Your task to perform on an android device: turn on javascript in the chrome app Image 0: 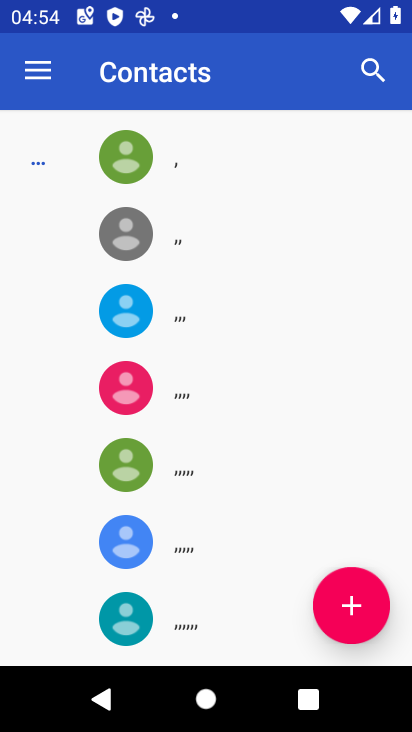
Step 0: press home button
Your task to perform on an android device: turn on javascript in the chrome app Image 1: 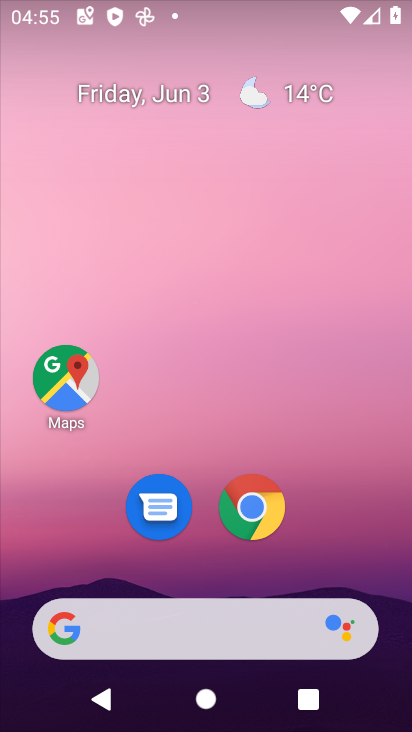
Step 1: drag from (353, 506) to (350, 144)
Your task to perform on an android device: turn on javascript in the chrome app Image 2: 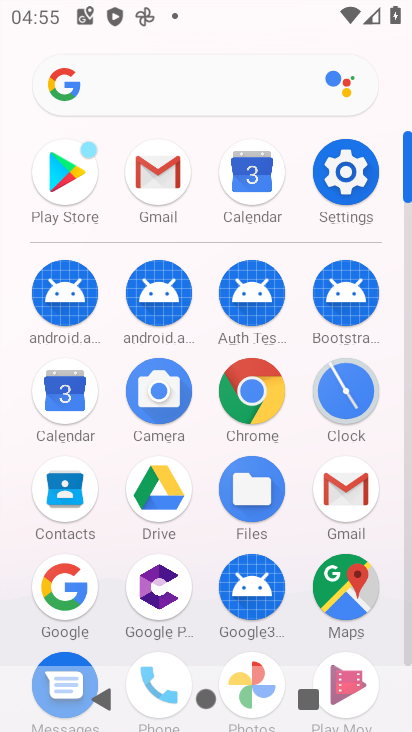
Step 2: click (262, 387)
Your task to perform on an android device: turn on javascript in the chrome app Image 3: 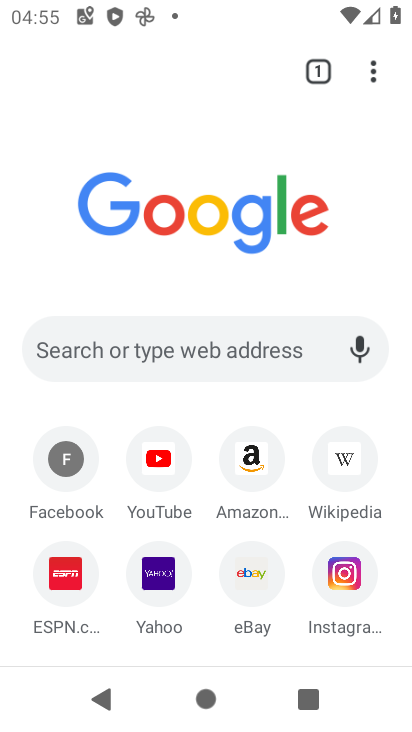
Step 3: click (371, 65)
Your task to perform on an android device: turn on javascript in the chrome app Image 4: 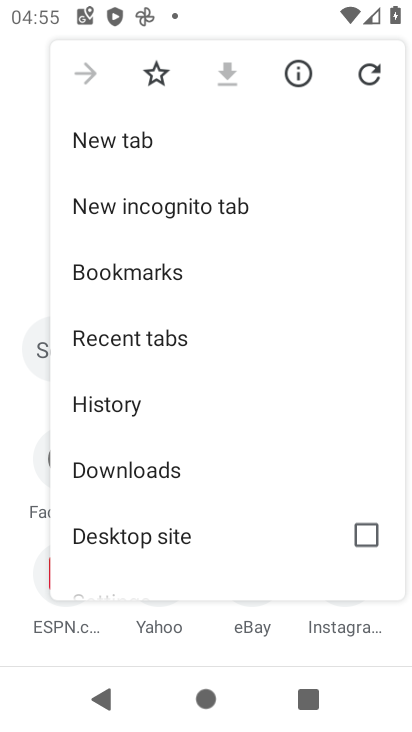
Step 4: drag from (241, 553) to (230, 89)
Your task to perform on an android device: turn on javascript in the chrome app Image 5: 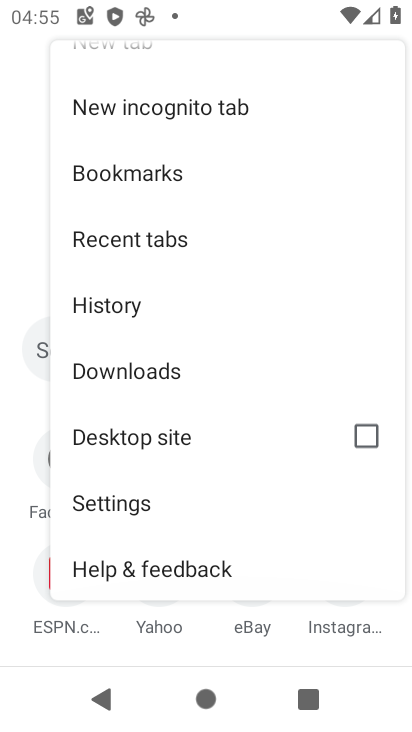
Step 5: click (158, 506)
Your task to perform on an android device: turn on javascript in the chrome app Image 6: 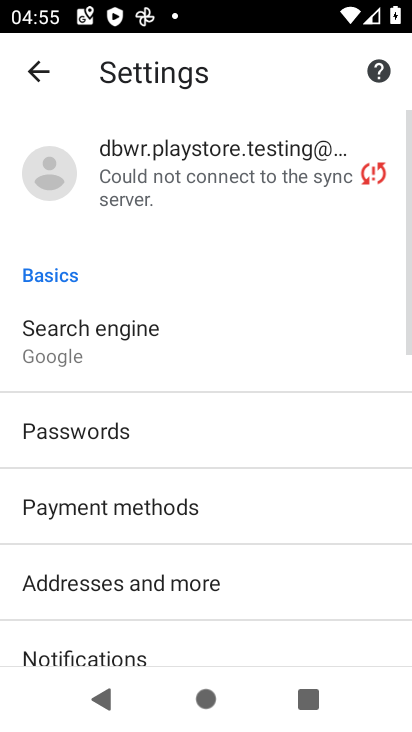
Step 6: drag from (271, 632) to (271, 155)
Your task to perform on an android device: turn on javascript in the chrome app Image 7: 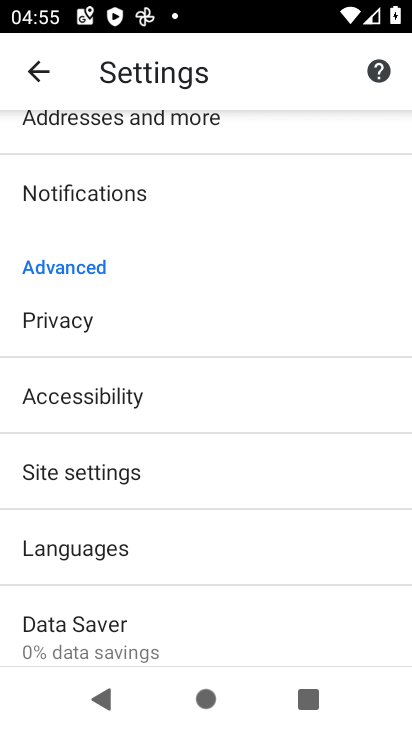
Step 7: click (100, 480)
Your task to perform on an android device: turn on javascript in the chrome app Image 8: 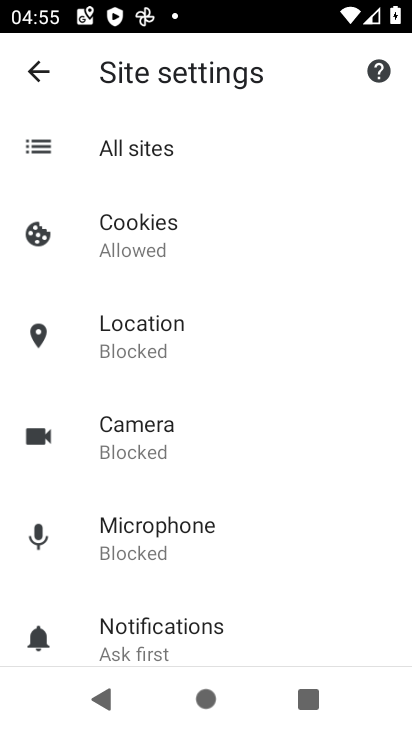
Step 8: drag from (326, 619) to (302, 272)
Your task to perform on an android device: turn on javascript in the chrome app Image 9: 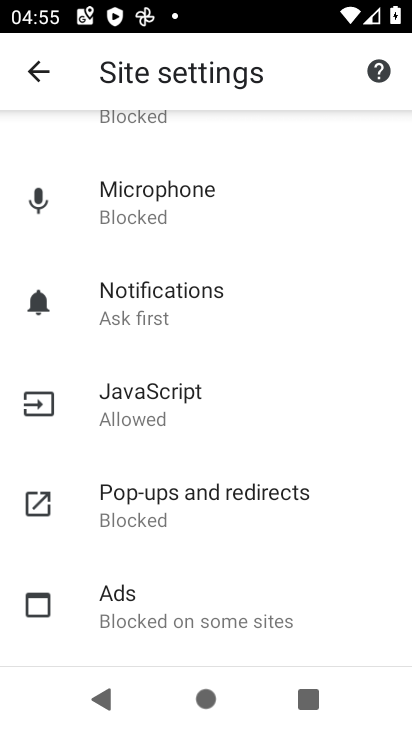
Step 9: click (177, 393)
Your task to perform on an android device: turn on javascript in the chrome app Image 10: 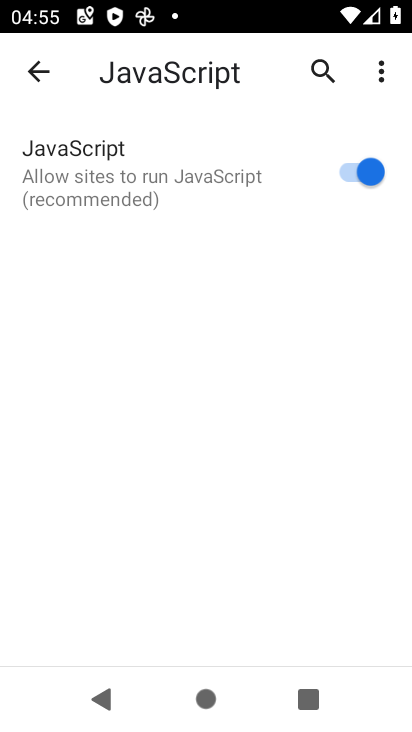
Step 10: task complete